Your task to perform on an android device: Search for the new Nintendo switch on Best Buy Image 0: 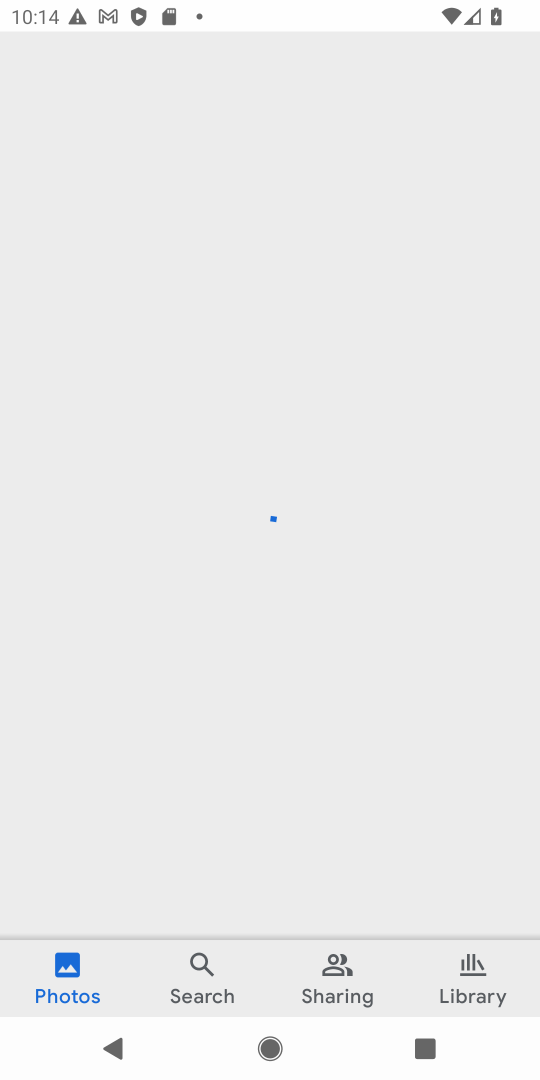
Step 0: click (245, 916)
Your task to perform on an android device: Search for the new Nintendo switch on Best Buy Image 1: 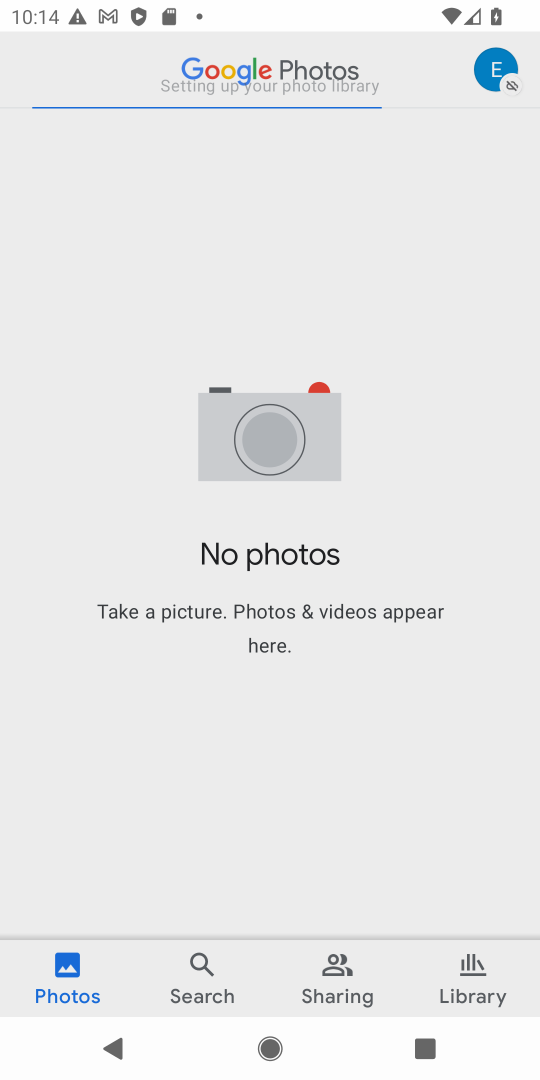
Step 1: press home button
Your task to perform on an android device: Search for the new Nintendo switch on Best Buy Image 2: 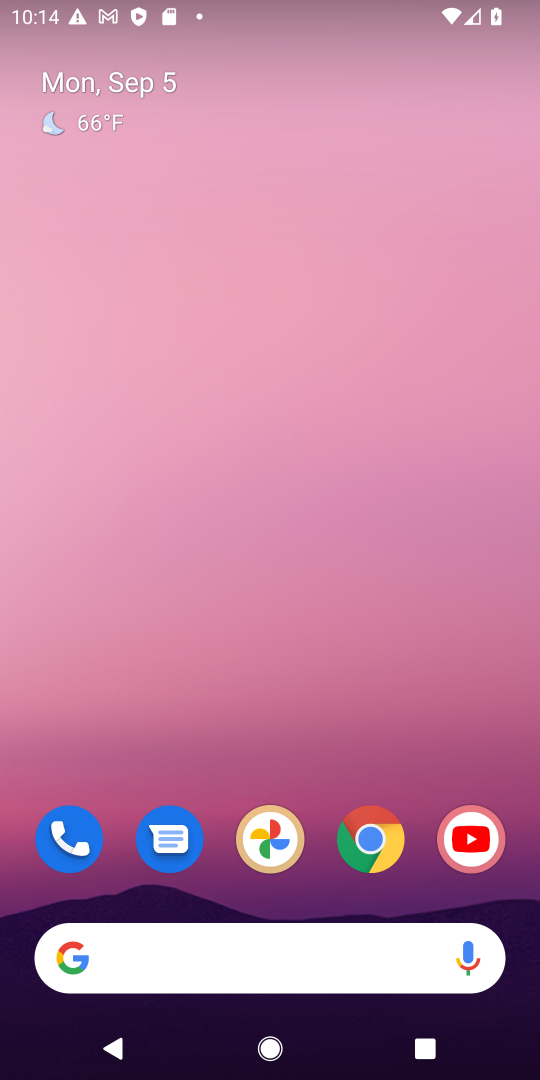
Step 2: drag from (197, 504) to (170, 237)
Your task to perform on an android device: Search for the new Nintendo switch on Best Buy Image 3: 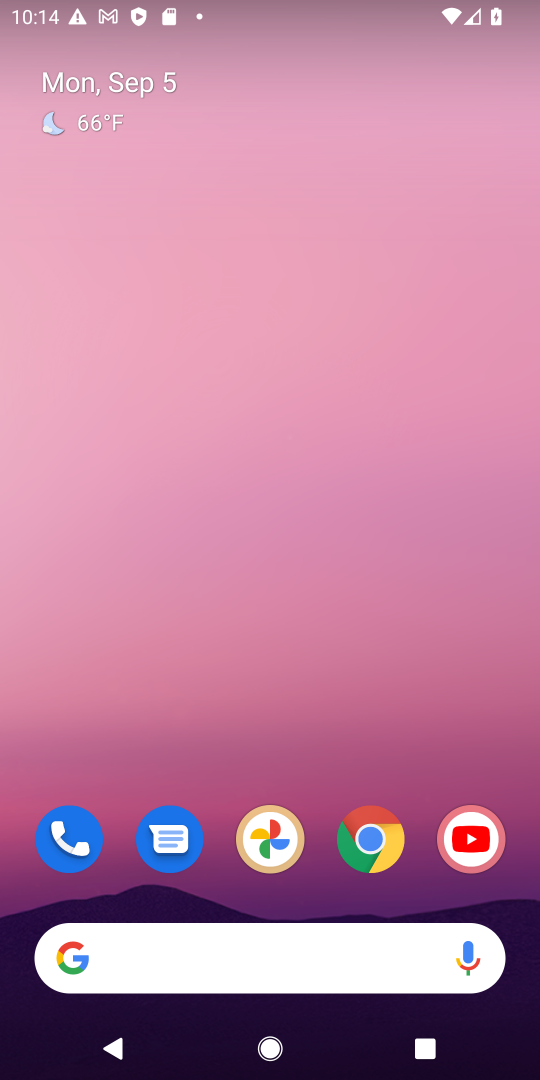
Step 3: drag from (253, 887) to (225, 284)
Your task to perform on an android device: Search for the new Nintendo switch on Best Buy Image 4: 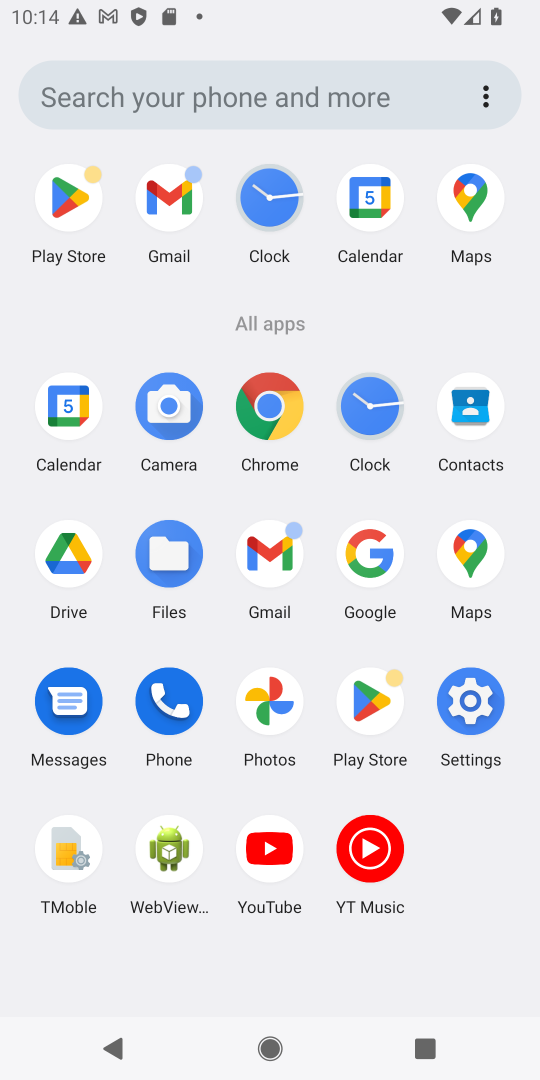
Step 4: click (366, 530)
Your task to perform on an android device: Search for the new Nintendo switch on Best Buy Image 5: 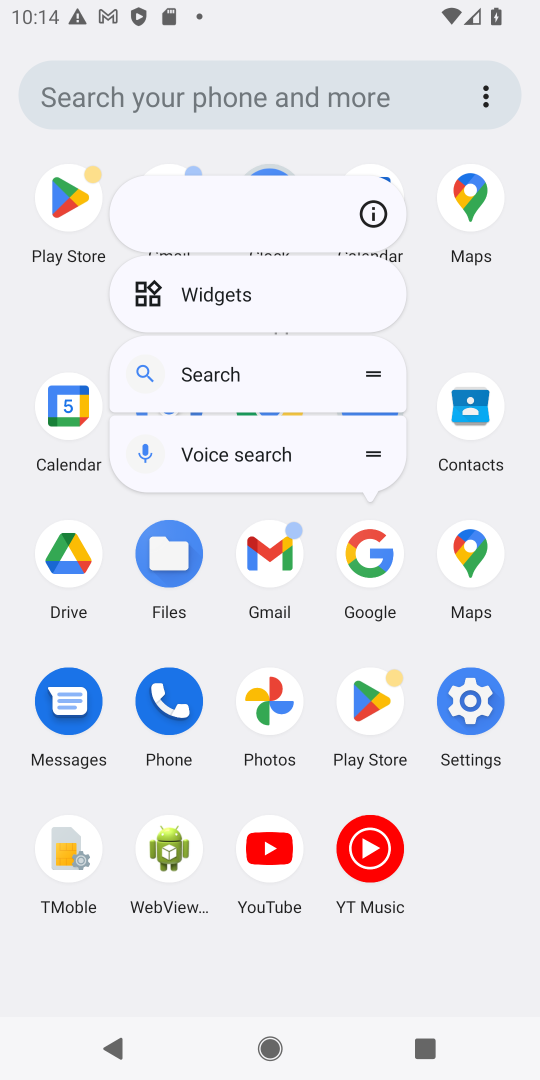
Step 5: click (368, 545)
Your task to perform on an android device: Search for the new Nintendo switch on Best Buy Image 6: 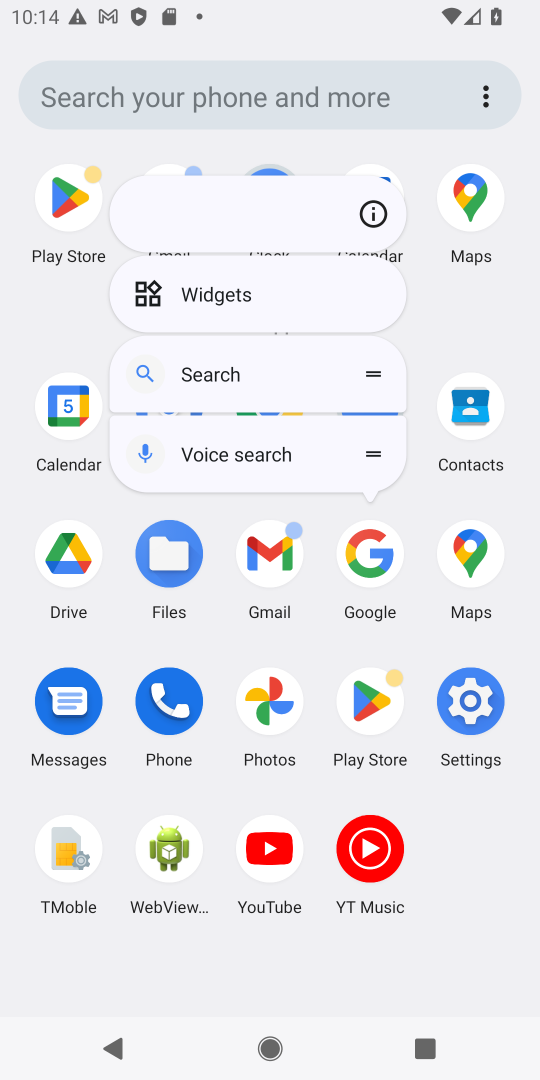
Step 6: click (376, 560)
Your task to perform on an android device: Search for the new Nintendo switch on Best Buy Image 7: 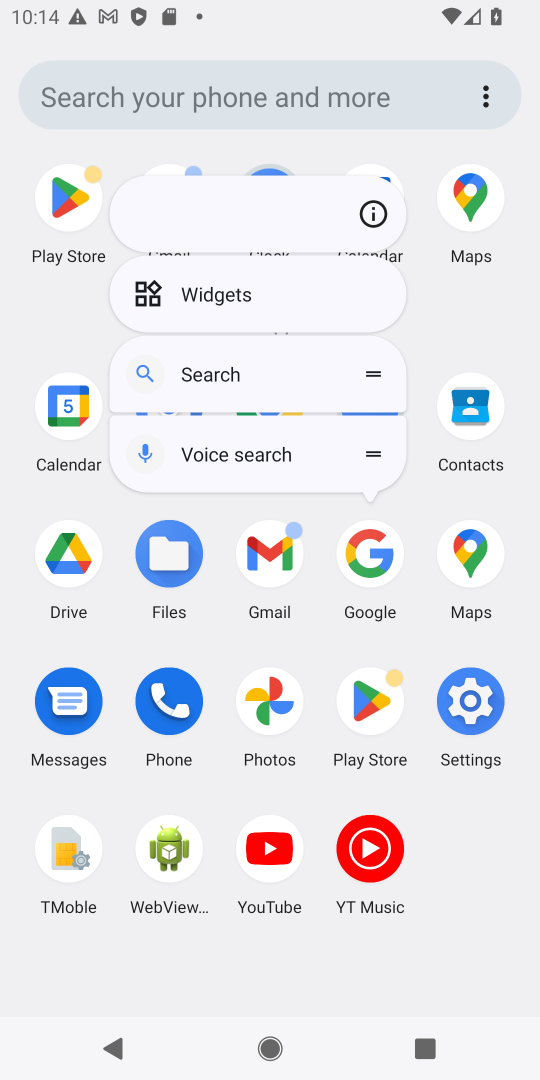
Step 7: click (376, 560)
Your task to perform on an android device: Search for the new Nintendo switch on Best Buy Image 8: 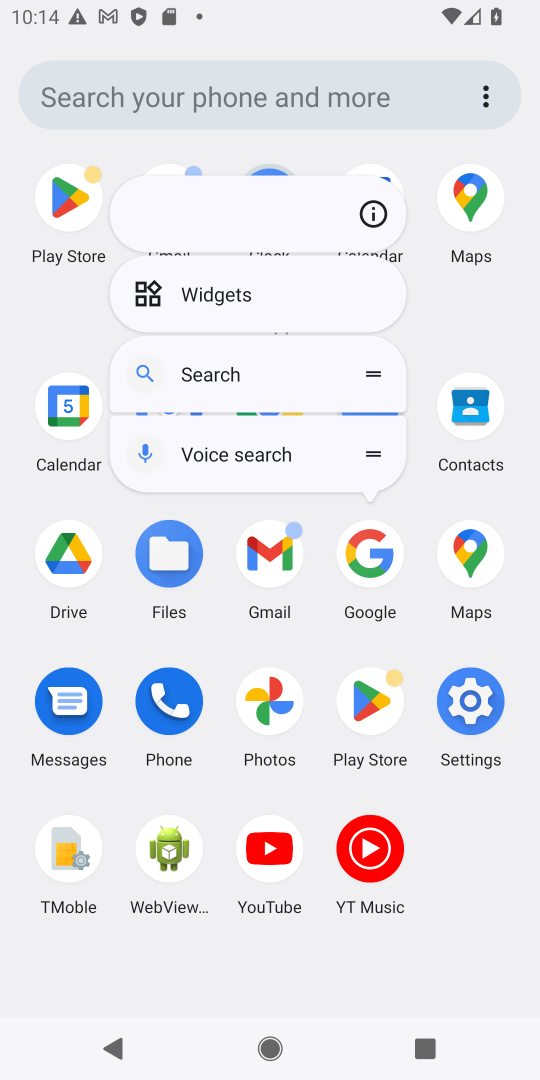
Step 8: click (358, 550)
Your task to perform on an android device: Search for the new Nintendo switch on Best Buy Image 9: 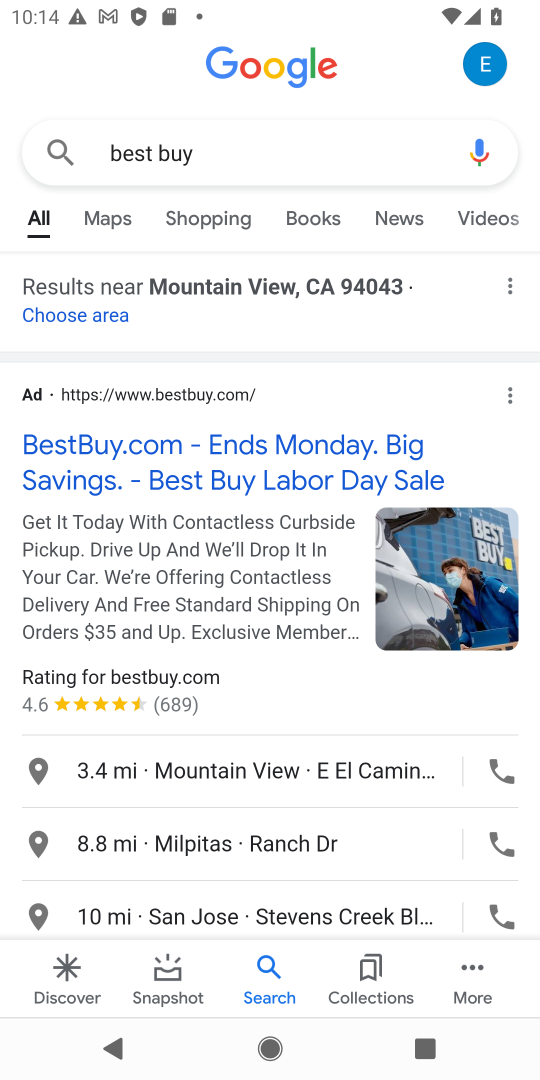
Step 9: click (207, 455)
Your task to perform on an android device: Search for the new Nintendo switch on Best Buy Image 10: 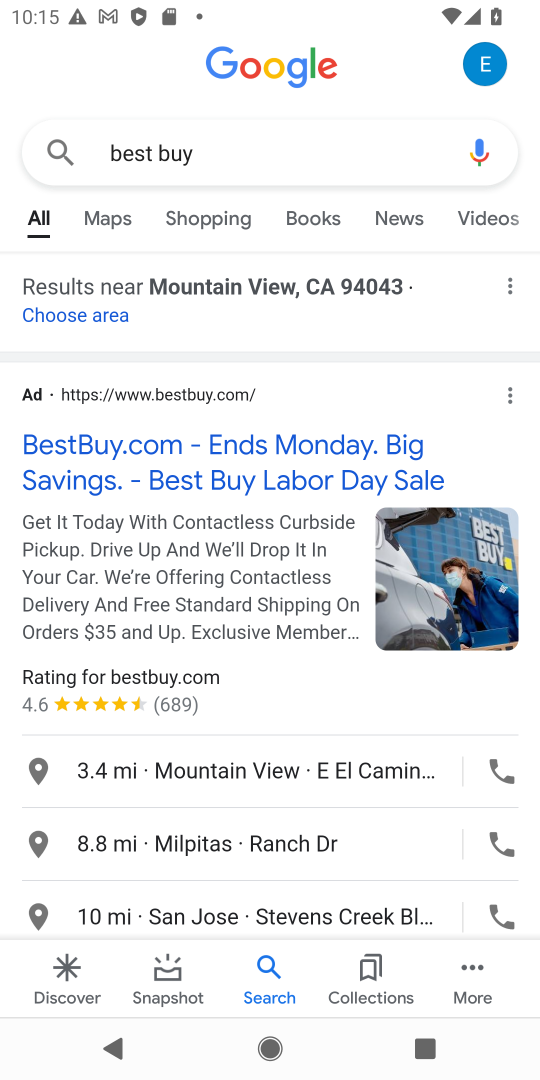
Step 10: click (207, 455)
Your task to perform on an android device: Search for the new Nintendo switch on Best Buy Image 11: 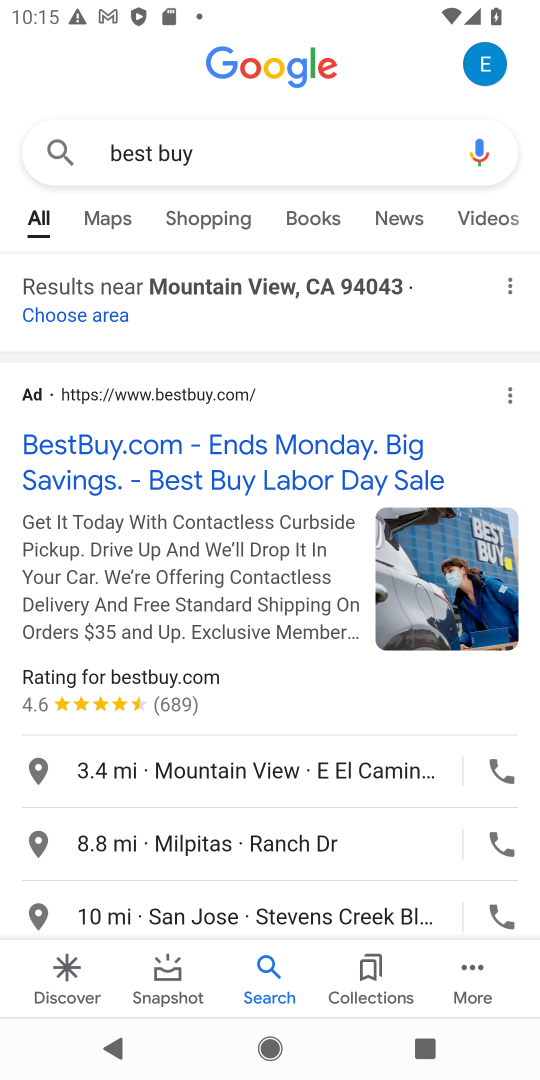
Step 11: click (207, 457)
Your task to perform on an android device: Search for the new Nintendo switch on Best Buy Image 12: 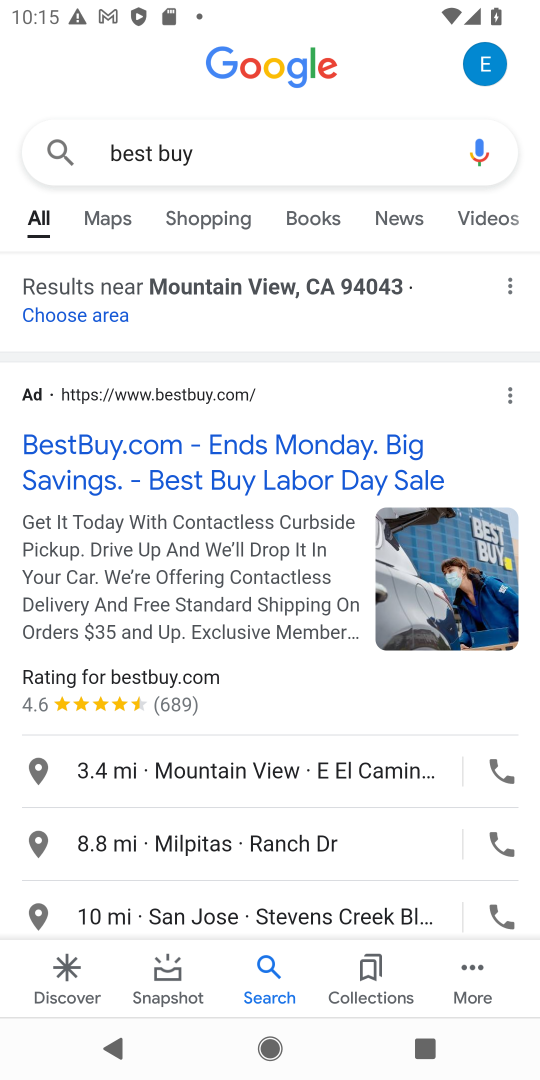
Step 12: click (207, 457)
Your task to perform on an android device: Search for the new Nintendo switch on Best Buy Image 13: 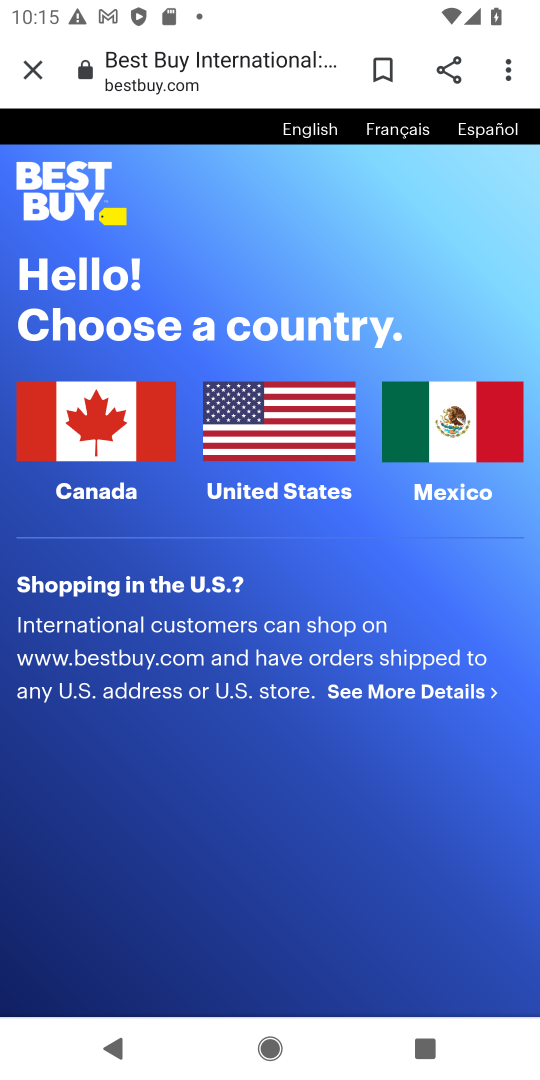
Step 13: task complete